Your task to perform on an android device: Search for seafood restaurants on Google Maps Image 0: 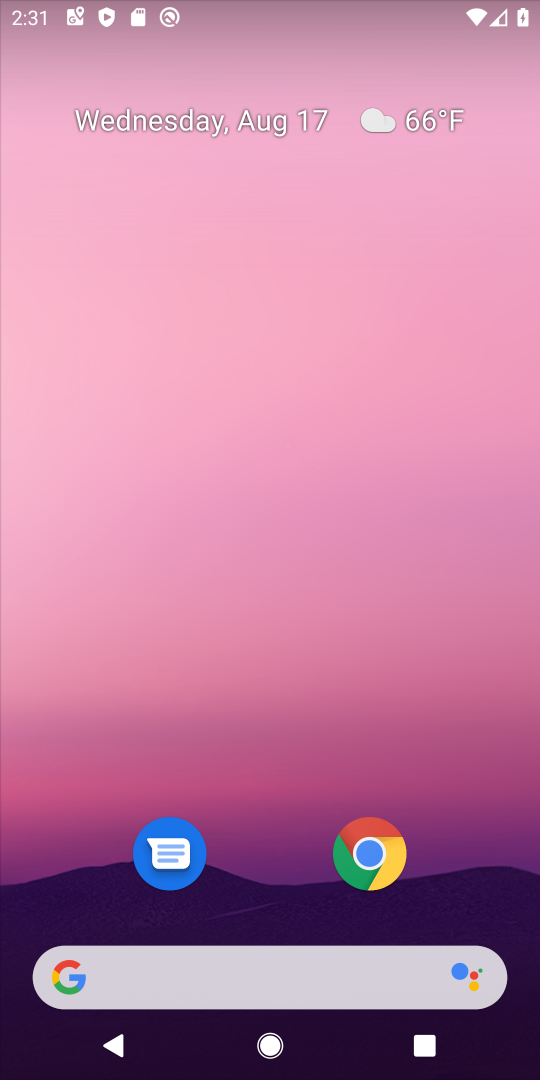
Step 0: press home button
Your task to perform on an android device: Search for seafood restaurants on Google Maps Image 1: 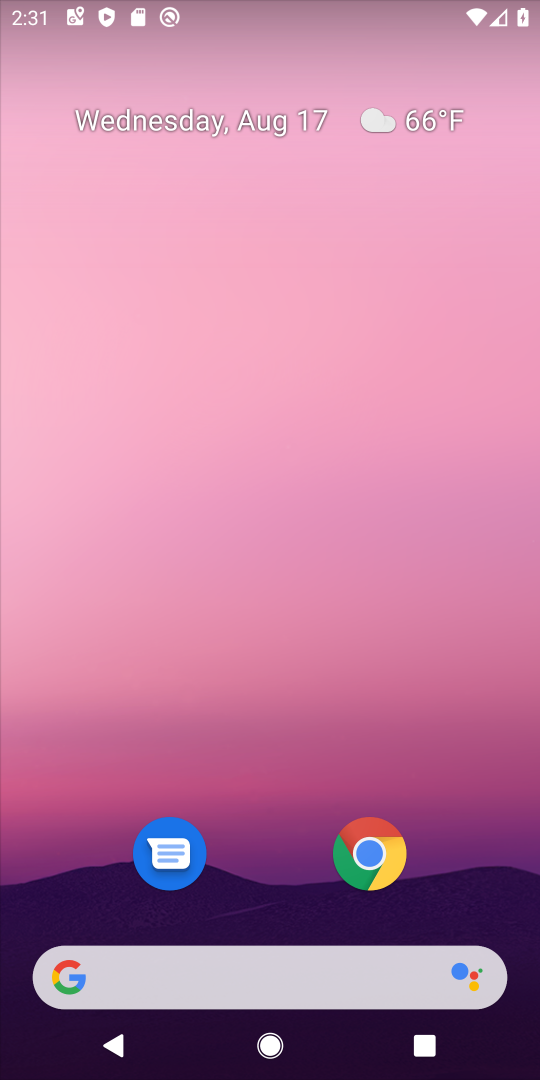
Step 1: drag from (225, 888) to (310, 146)
Your task to perform on an android device: Search for seafood restaurants on Google Maps Image 2: 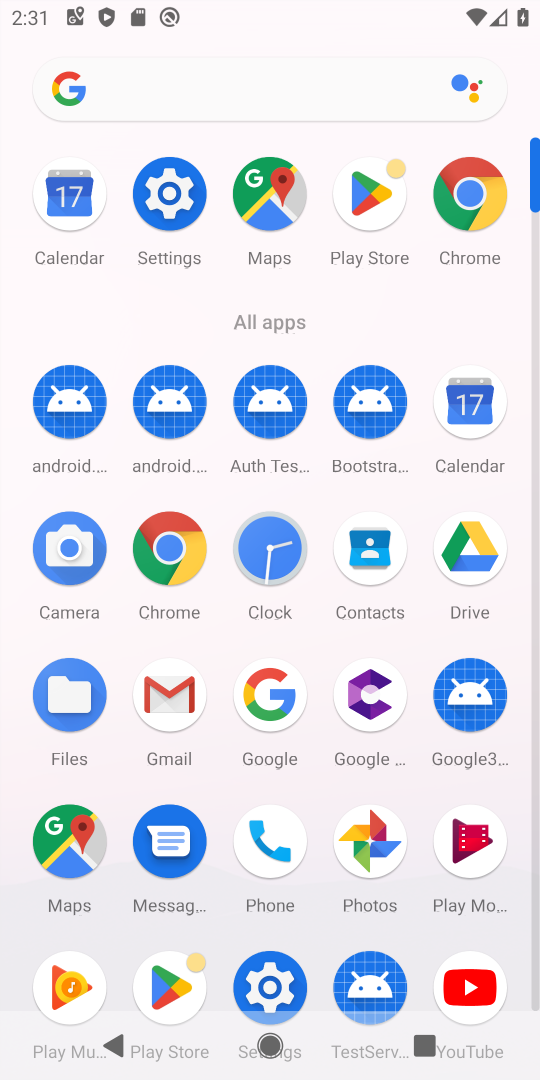
Step 2: click (85, 815)
Your task to perform on an android device: Search for seafood restaurants on Google Maps Image 3: 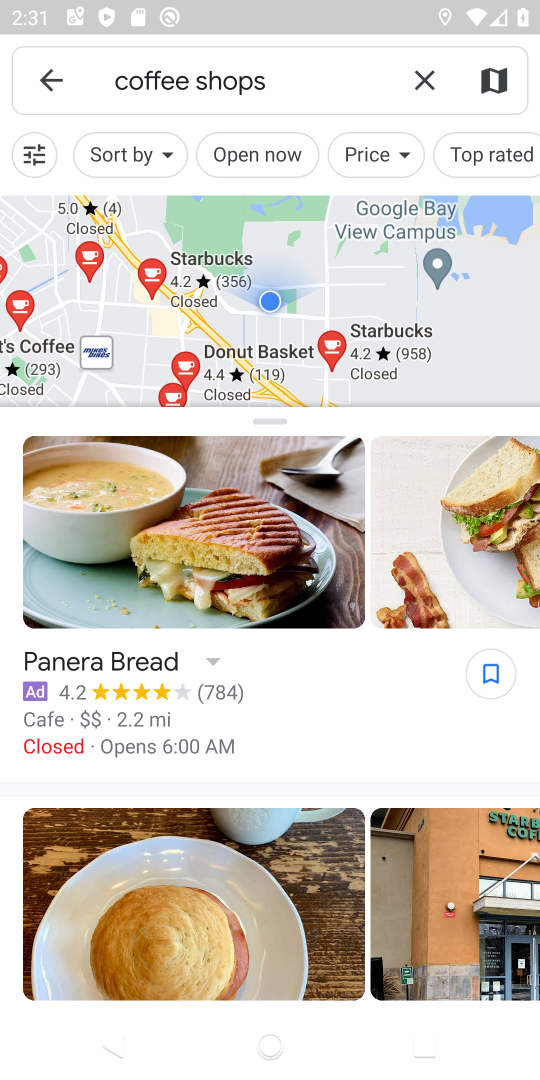
Step 3: click (416, 75)
Your task to perform on an android device: Search for seafood restaurants on Google Maps Image 4: 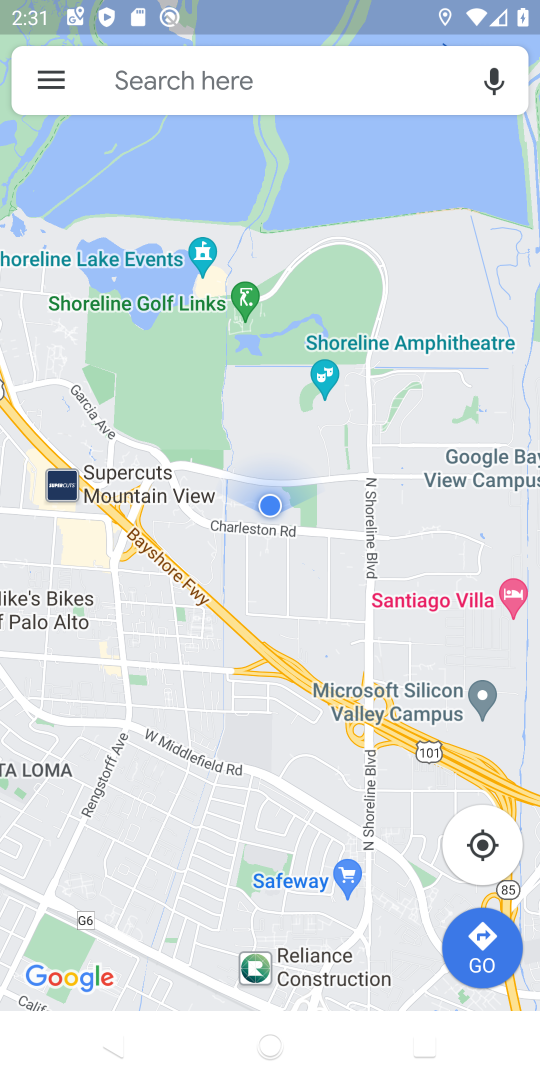
Step 4: type "seafood restaurants"
Your task to perform on an android device: Search for seafood restaurants on Google Maps Image 5: 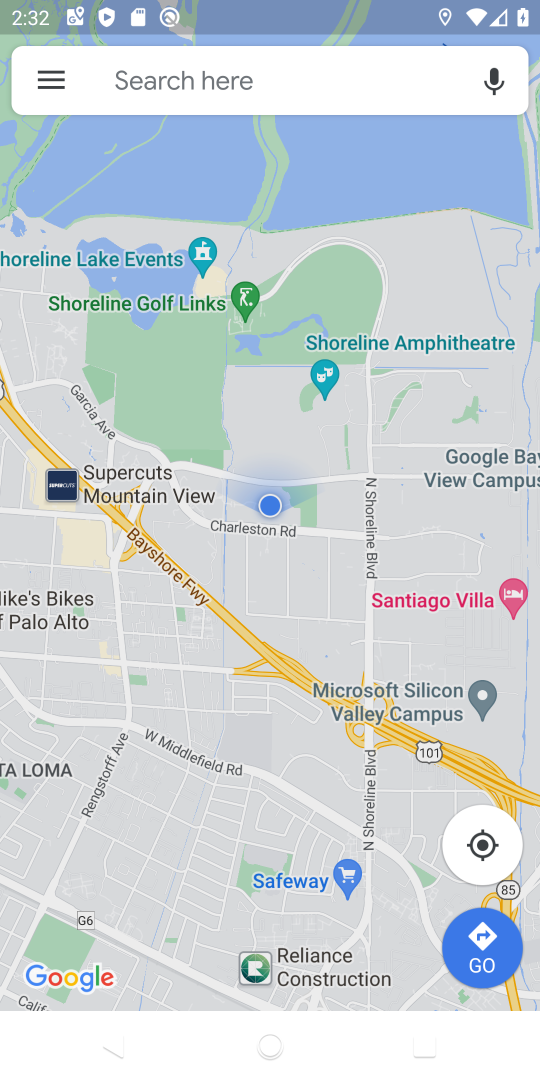
Step 5: click (181, 78)
Your task to perform on an android device: Search for seafood restaurants on Google Maps Image 6: 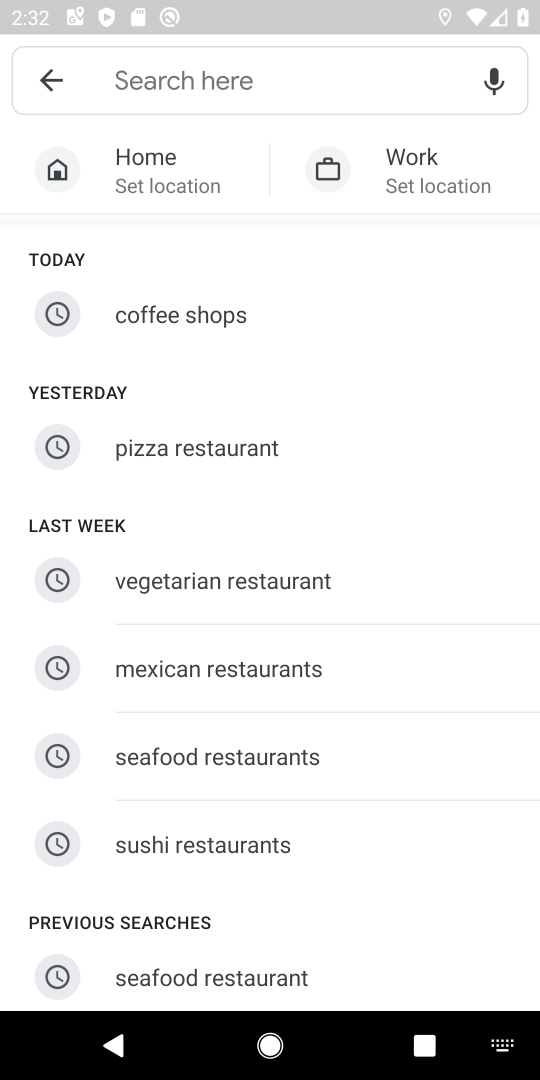
Step 6: type "seafood restaurants"
Your task to perform on an android device: Search for seafood restaurants on Google Maps Image 7: 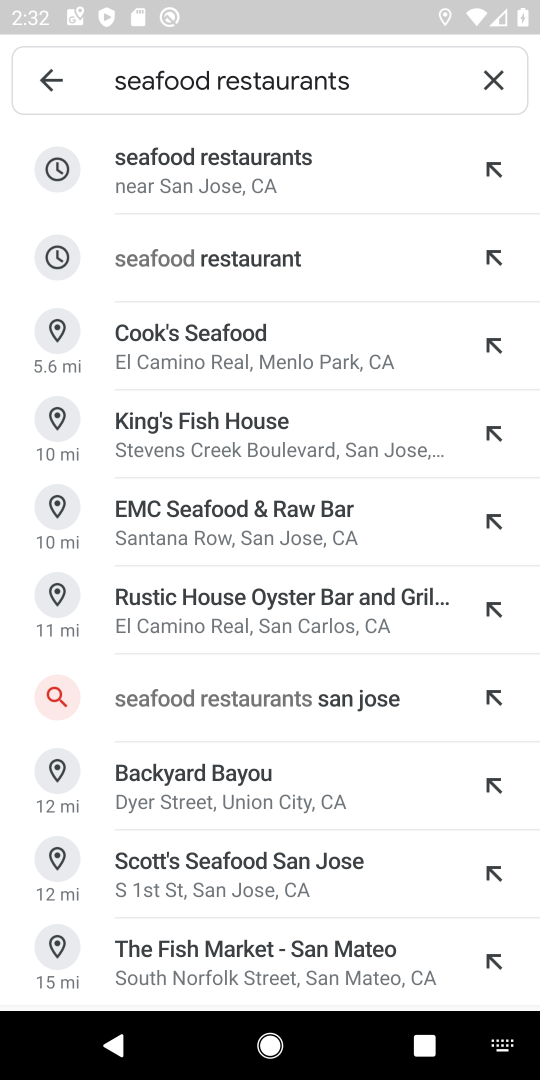
Step 7: click (244, 154)
Your task to perform on an android device: Search for seafood restaurants on Google Maps Image 8: 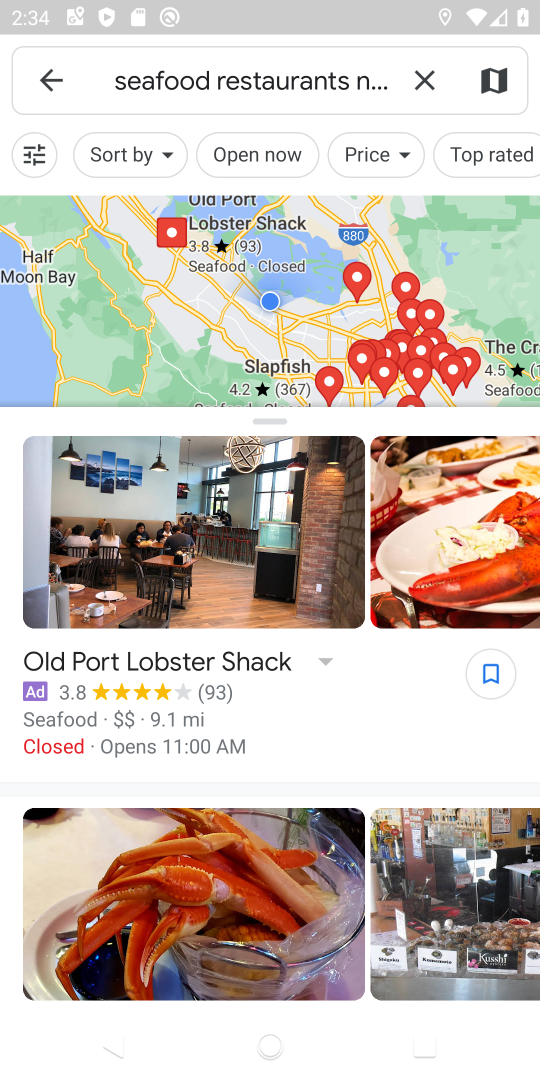
Step 8: task complete